Your task to perform on an android device: Is it going to rain this weekend? Image 0: 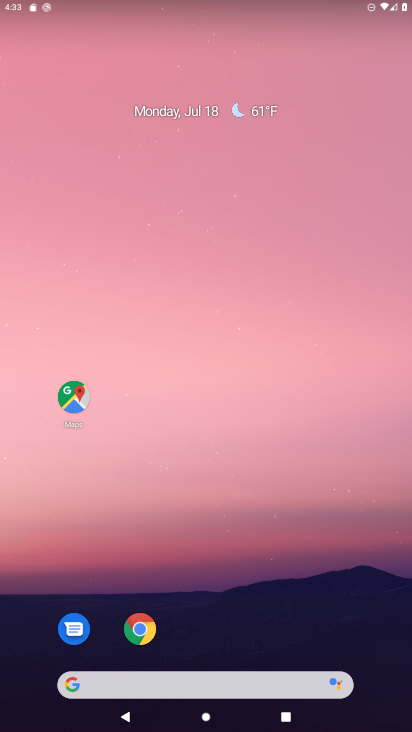
Step 0: drag from (281, 530) to (296, 201)
Your task to perform on an android device: Is it going to rain this weekend? Image 1: 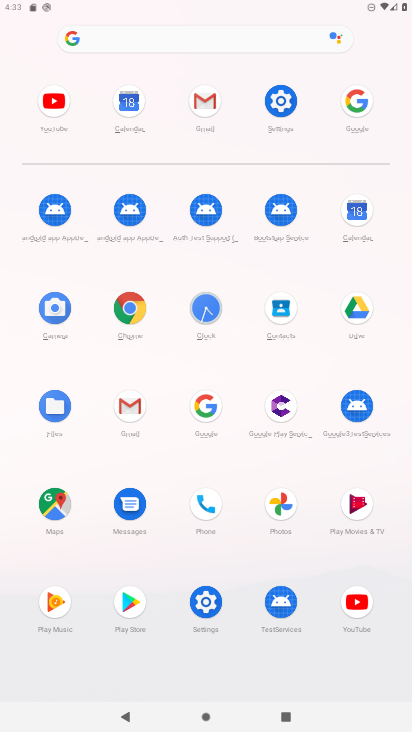
Step 1: click (197, 415)
Your task to perform on an android device: Is it going to rain this weekend? Image 2: 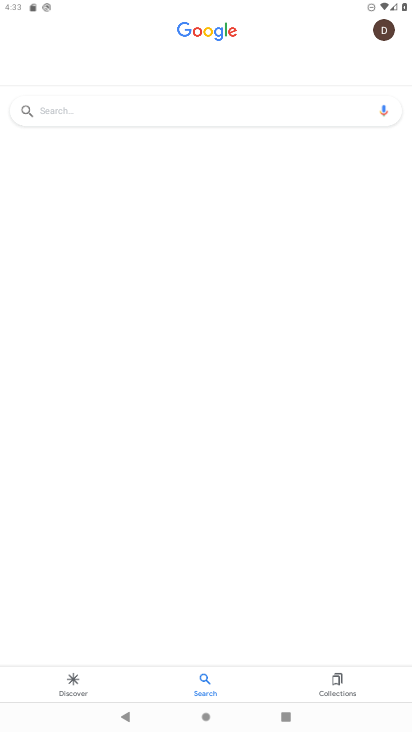
Step 2: drag from (205, 107) to (146, 107)
Your task to perform on an android device: Is it going to rain this weekend? Image 3: 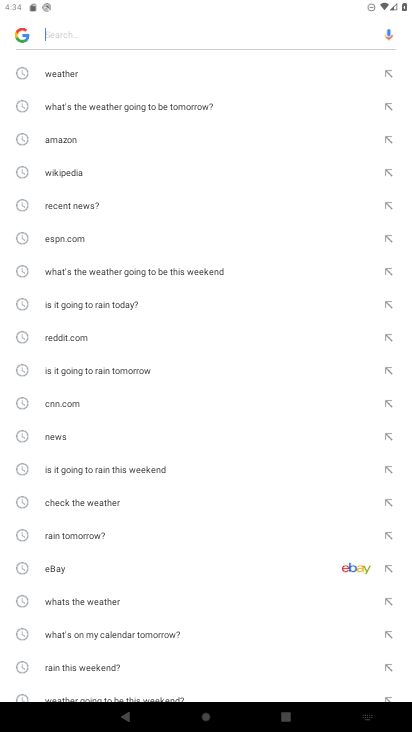
Step 3: click (144, 467)
Your task to perform on an android device: Is it going to rain this weekend? Image 4: 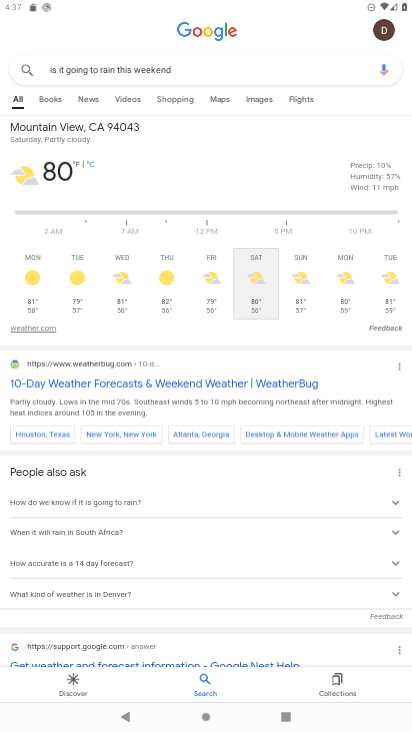
Step 4: task complete